Your task to perform on an android device: show emergency info Image 0: 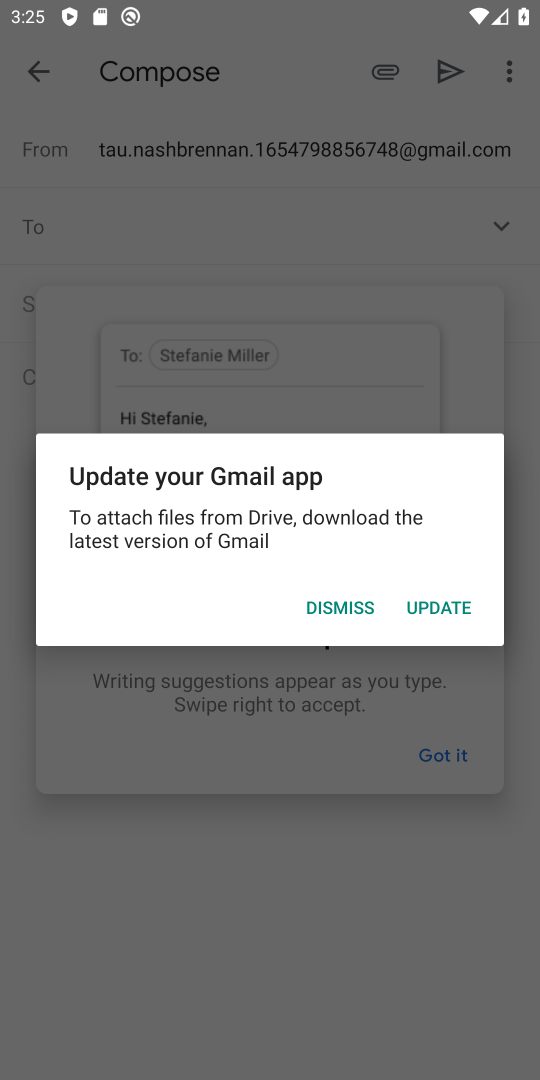
Step 0: press home button
Your task to perform on an android device: show emergency info Image 1: 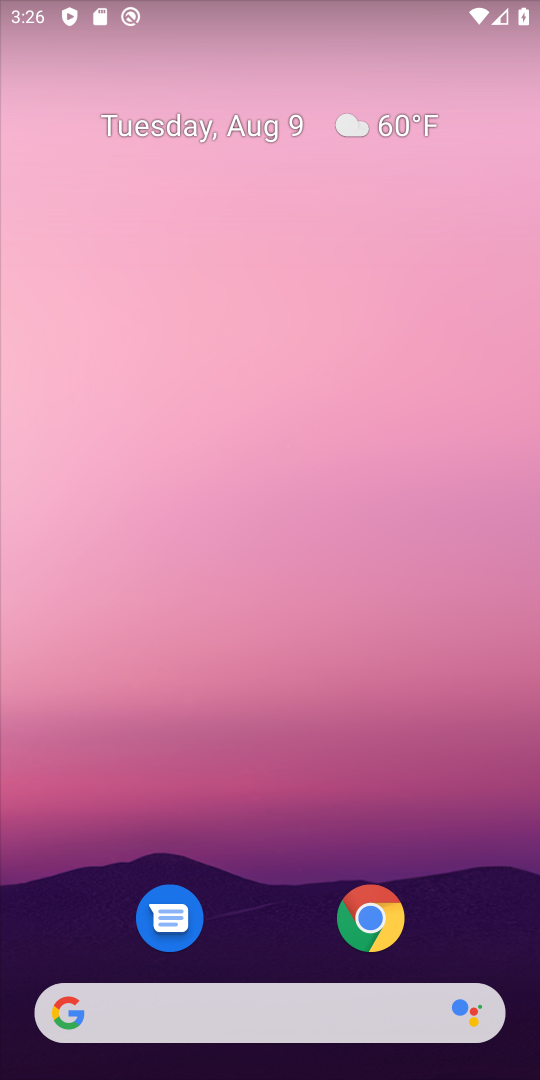
Step 1: drag from (260, 990) to (182, 44)
Your task to perform on an android device: show emergency info Image 2: 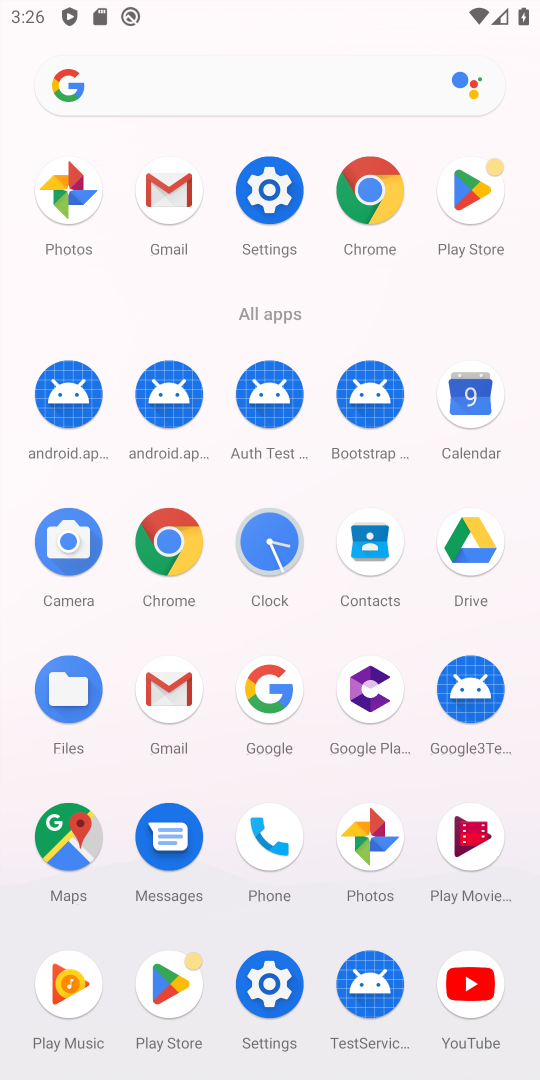
Step 2: click (273, 182)
Your task to perform on an android device: show emergency info Image 3: 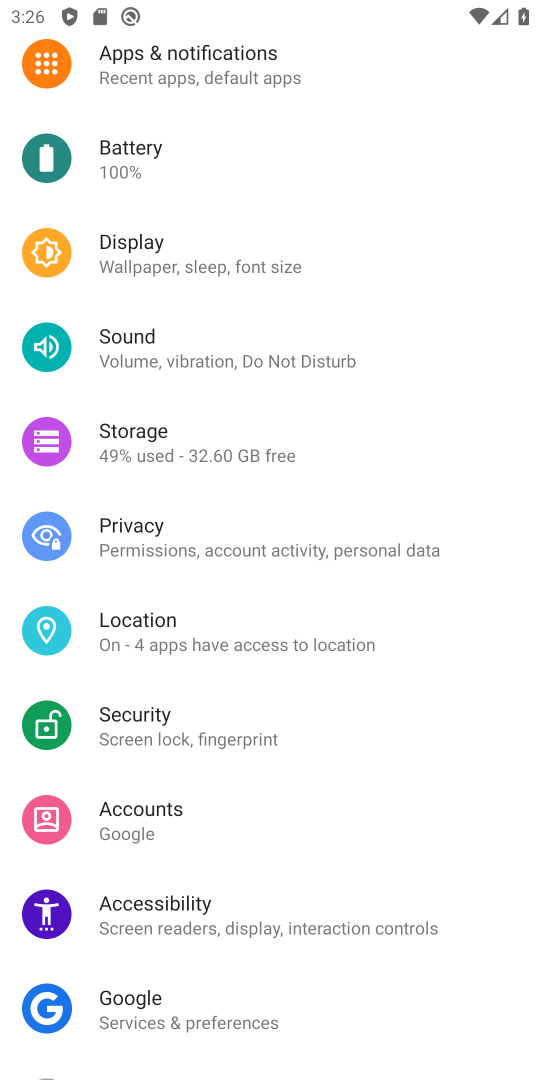
Step 3: drag from (120, 958) to (180, 47)
Your task to perform on an android device: show emergency info Image 4: 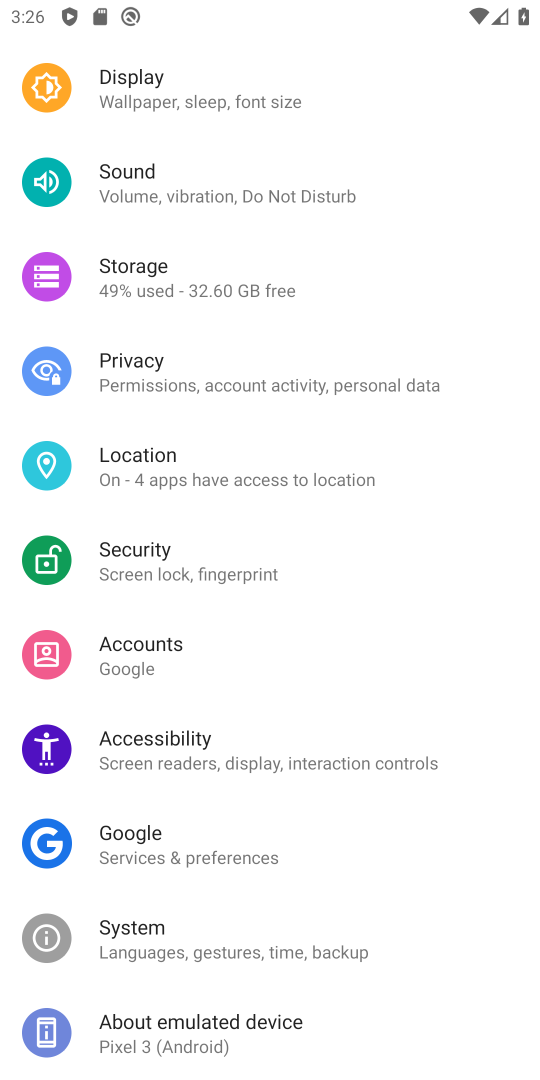
Step 4: drag from (220, 978) to (222, 252)
Your task to perform on an android device: show emergency info Image 5: 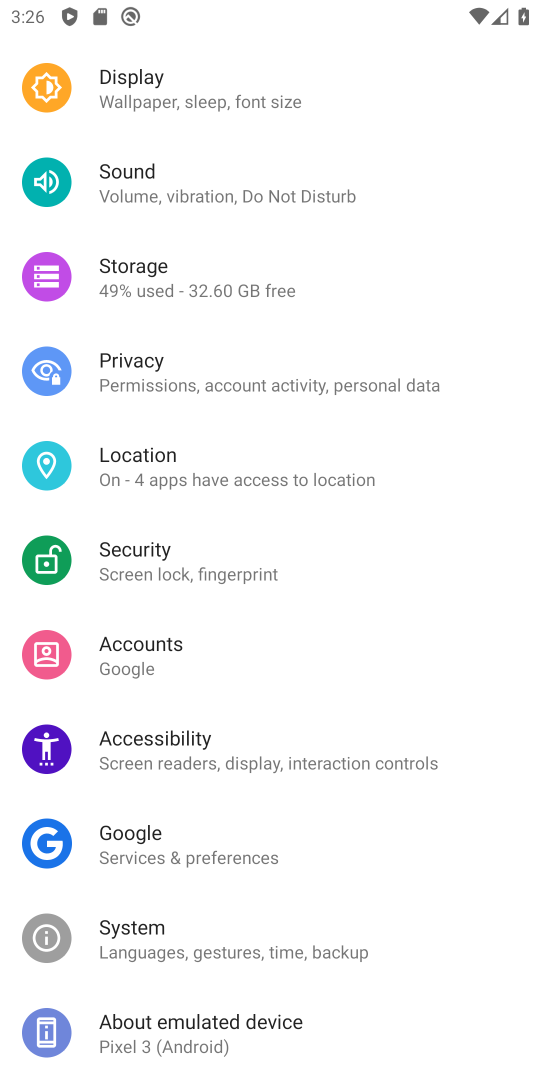
Step 5: click (176, 1035)
Your task to perform on an android device: show emergency info Image 6: 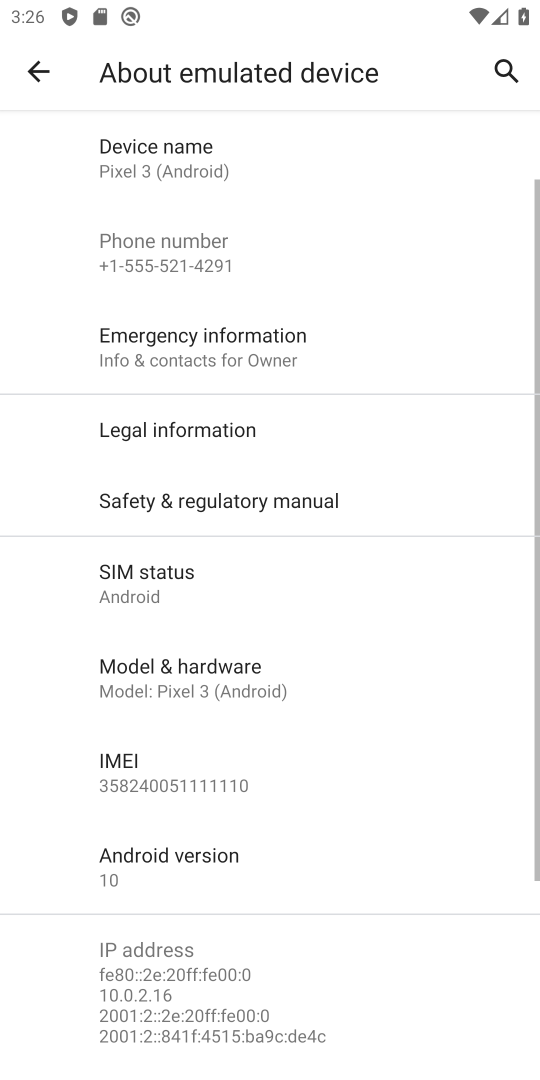
Step 6: click (175, 368)
Your task to perform on an android device: show emergency info Image 7: 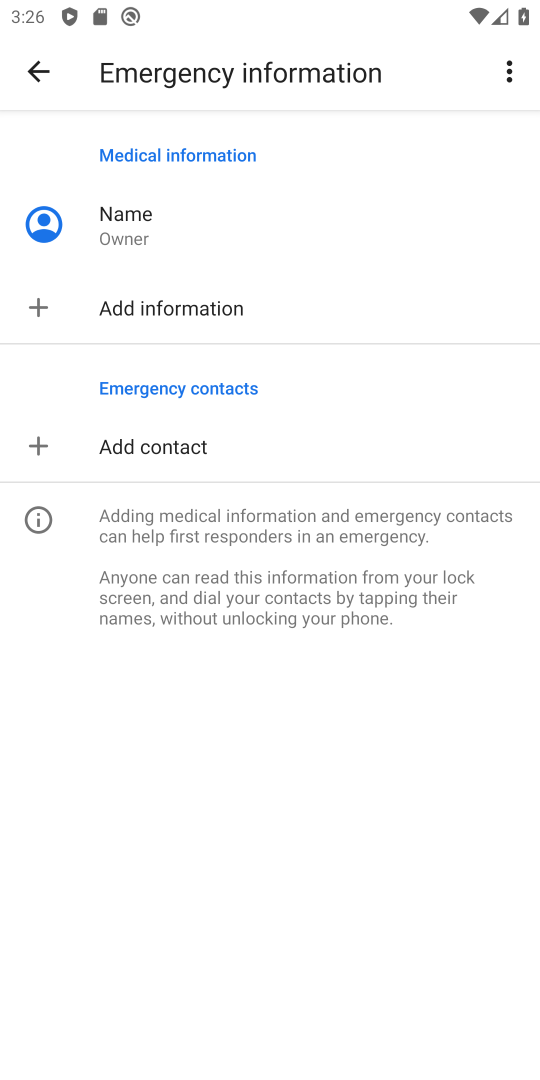
Step 7: task complete